Your task to perform on an android device: Go to Google maps Image 0: 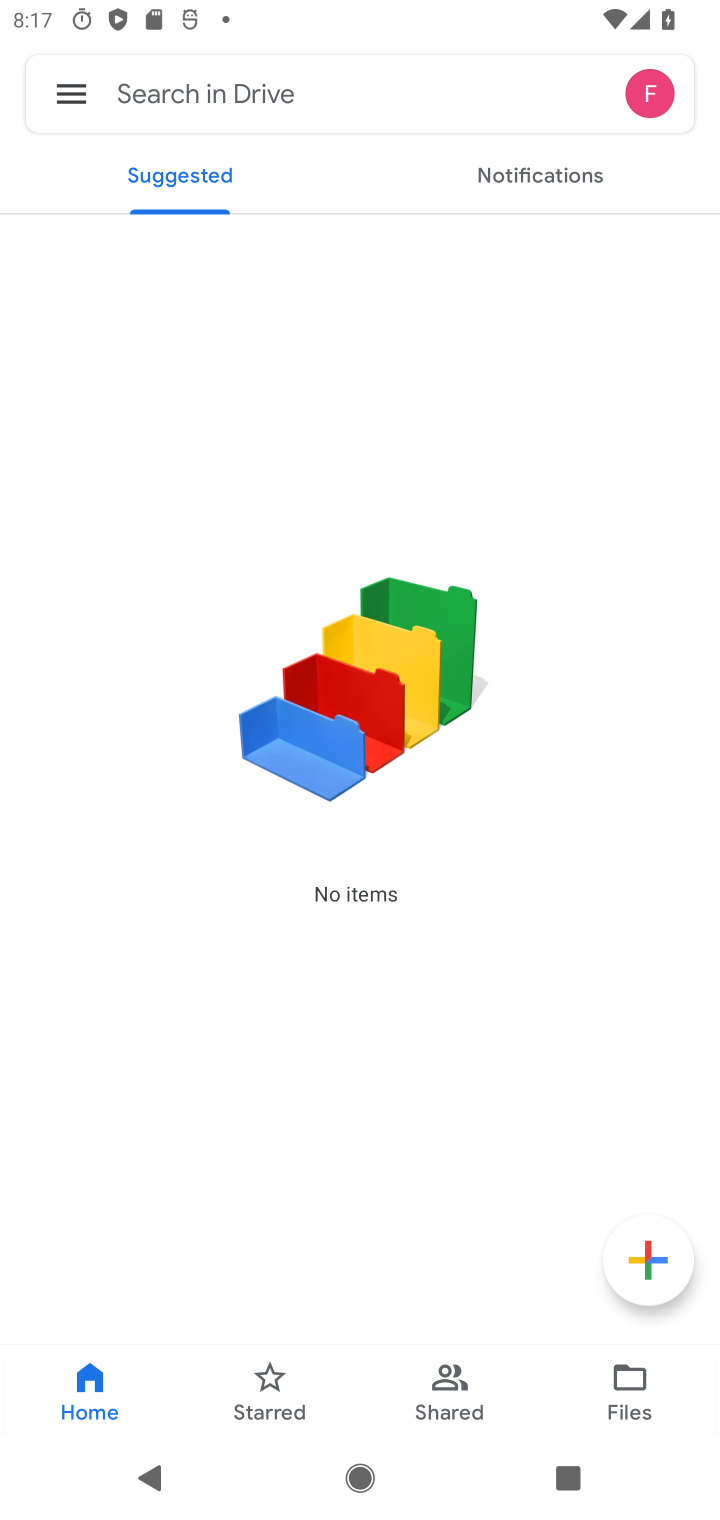
Step 0: press home button
Your task to perform on an android device: Go to Google maps Image 1: 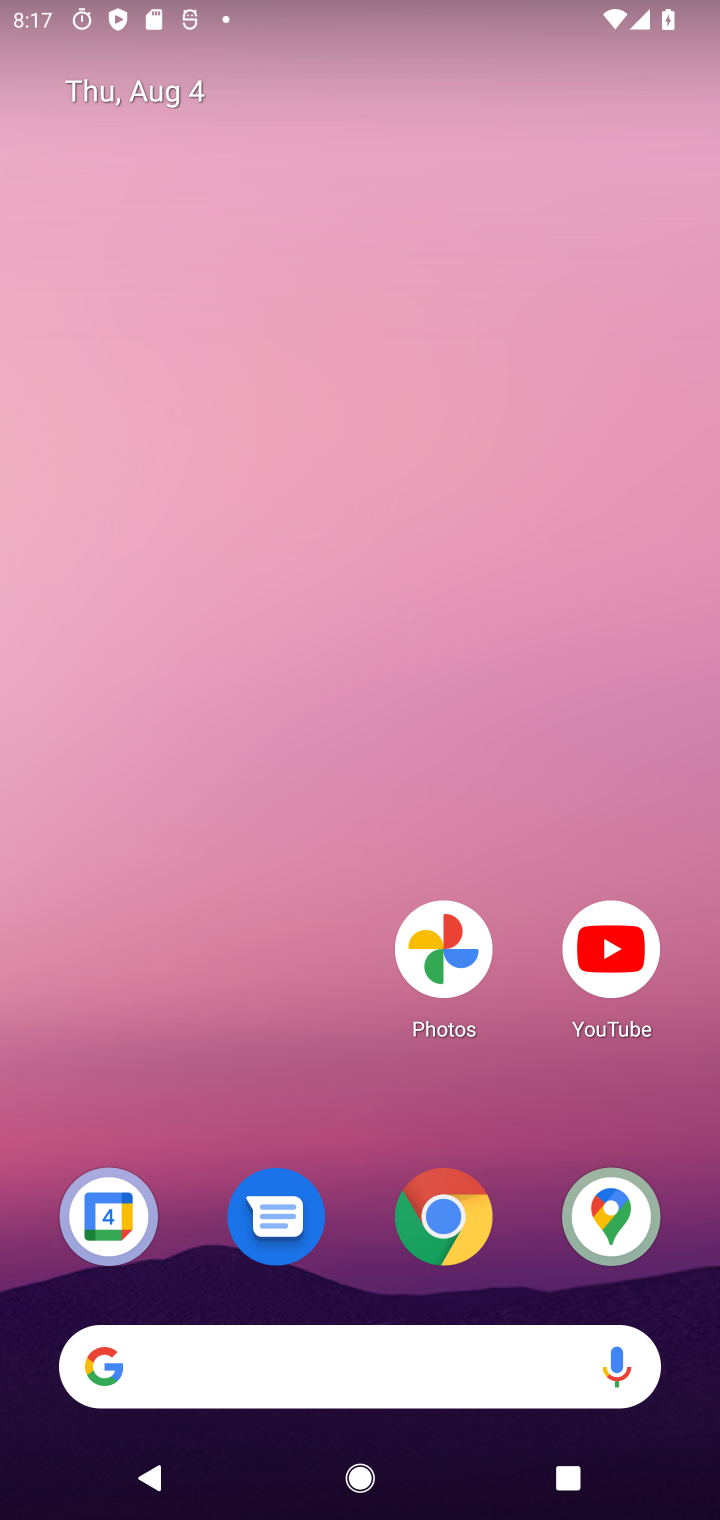
Step 1: drag from (345, 1301) to (369, 27)
Your task to perform on an android device: Go to Google maps Image 2: 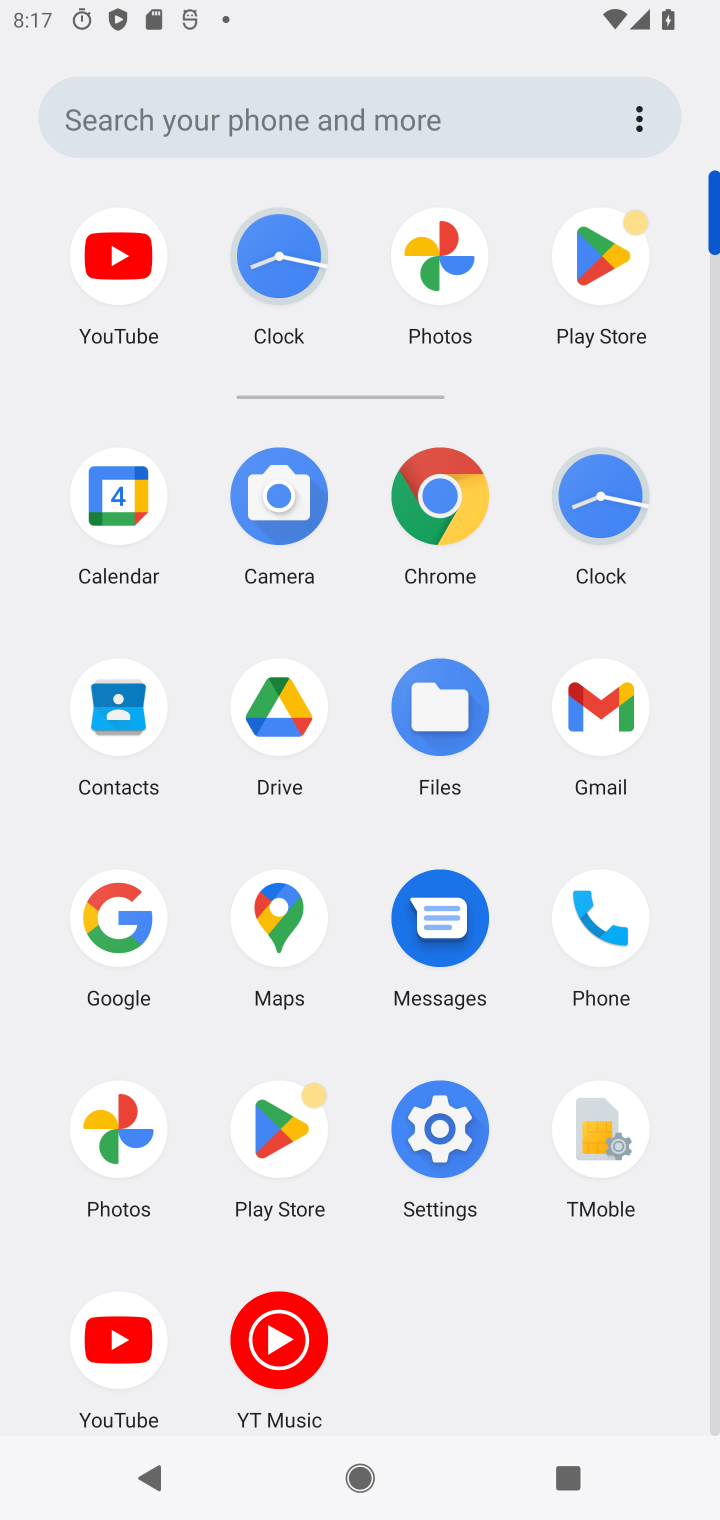
Step 2: click (265, 920)
Your task to perform on an android device: Go to Google maps Image 3: 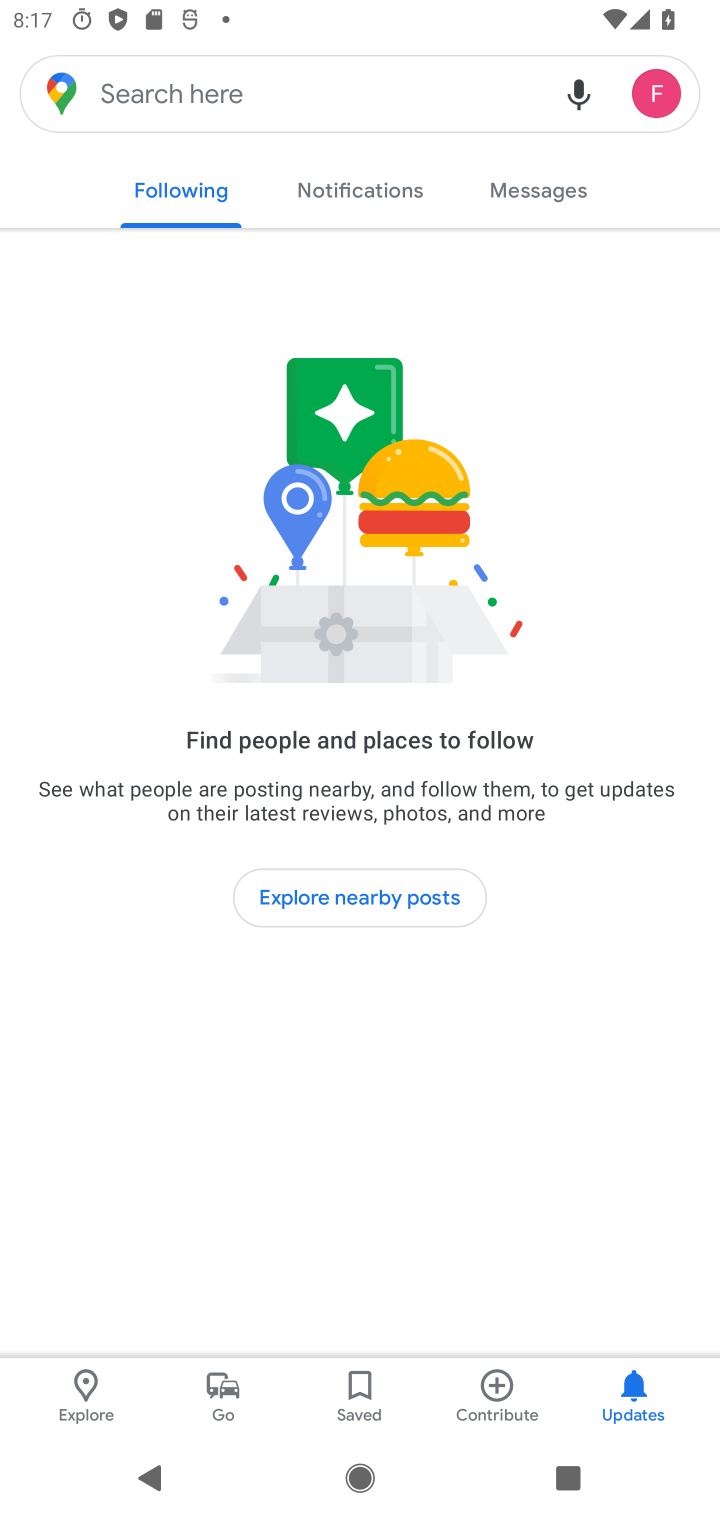
Step 3: click (89, 1385)
Your task to perform on an android device: Go to Google maps Image 4: 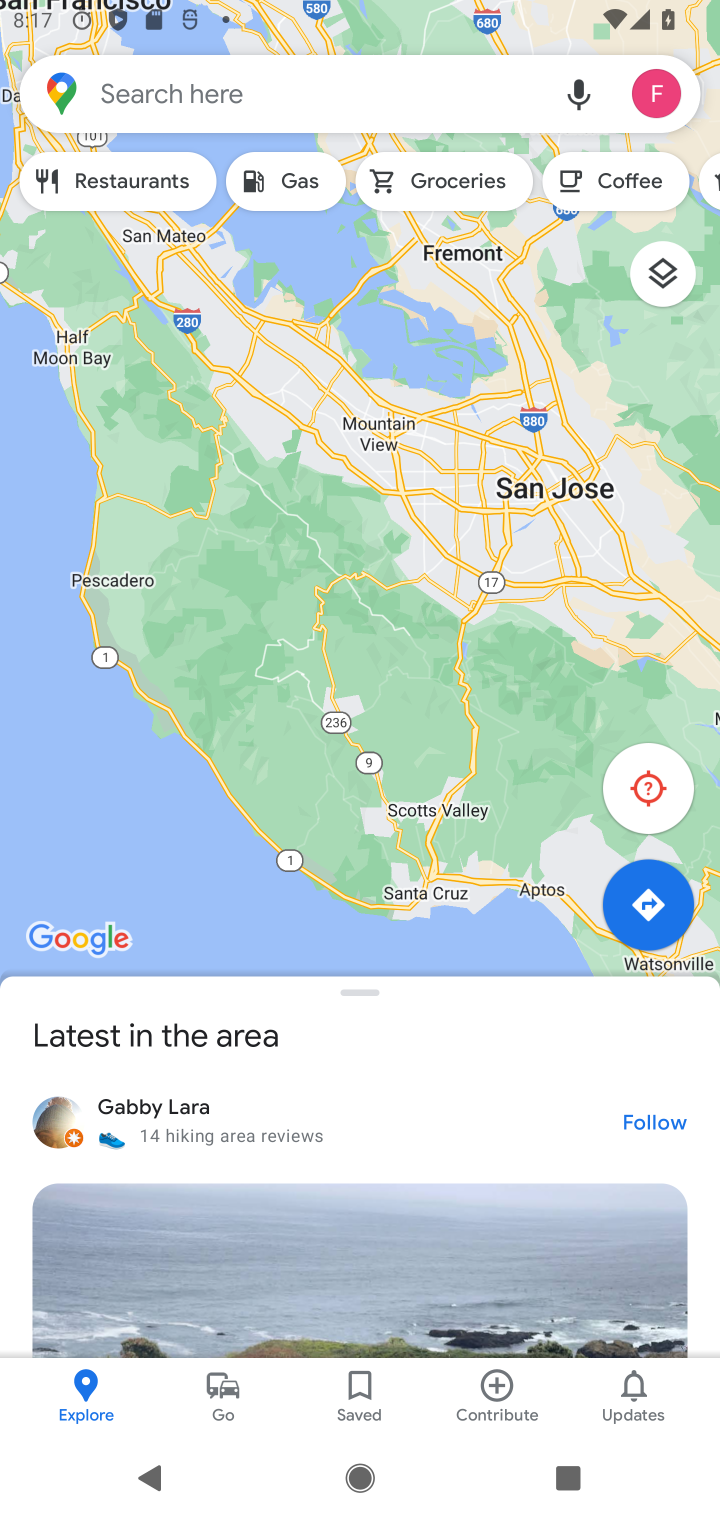
Step 4: task complete